Your task to perform on an android device: turn off notifications in google photos Image 0: 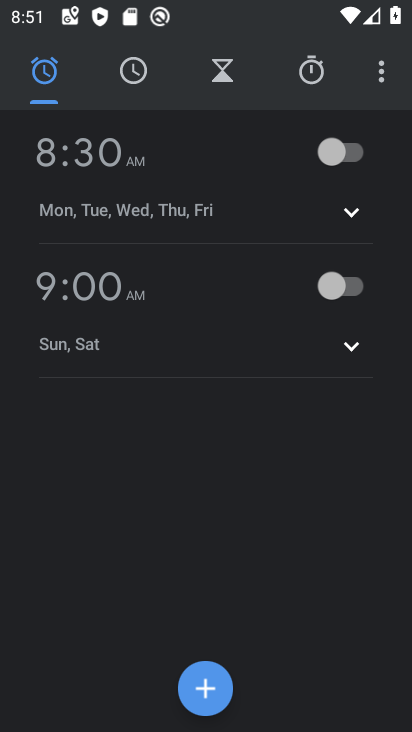
Step 0: press home button
Your task to perform on an android device: turn off notifications in google photos Image 1: 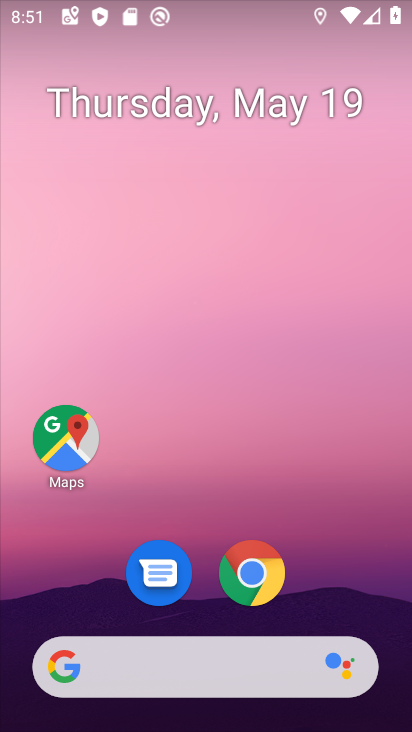
Step 1: drag from (325, 612) to (342, 12)
Your task to perform on an android device: turn off notifications in google photos Image 2: 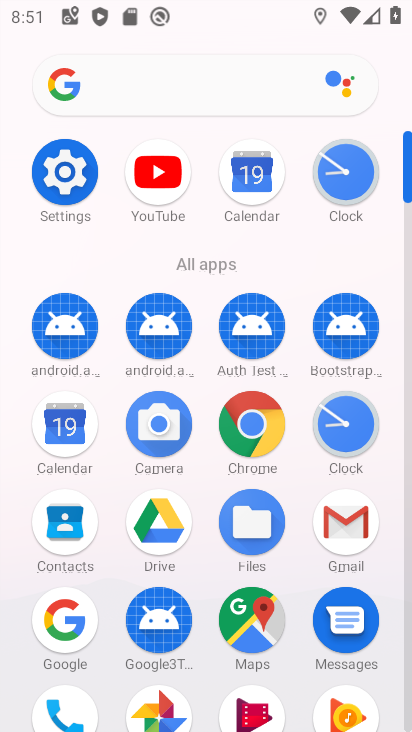
Step 2: click (156, 699)
Your task to perform on an android device: turn off notifications in google photos Image 3: 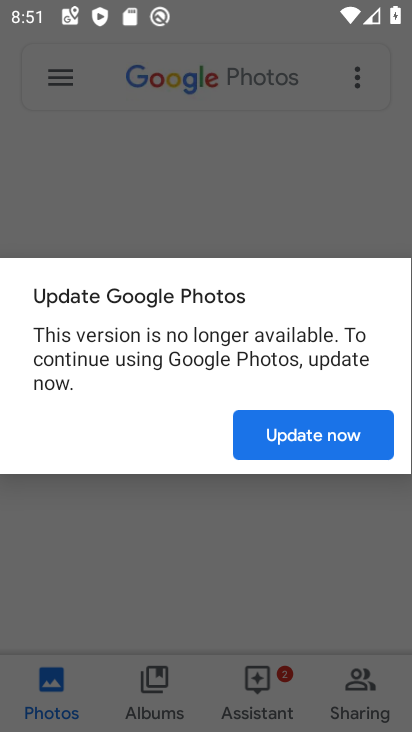
Step 3: click (288, 435)
Your task to perform on an android device: turn off notifications in google photos Image 4: 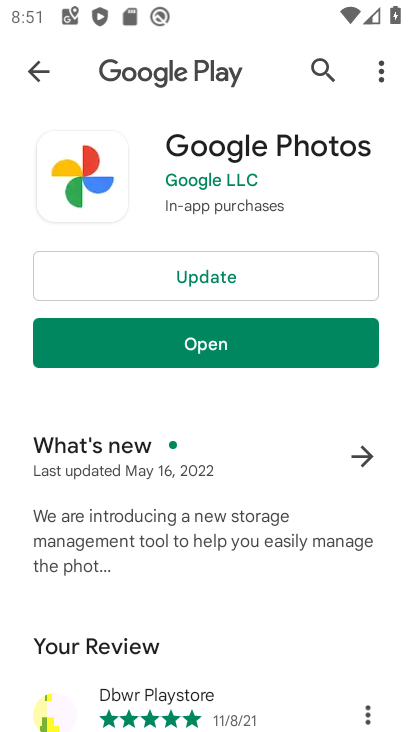
Step 4: click (210, 338)
Your task to perform on an android device: turn off notifications in google photos Image 5: 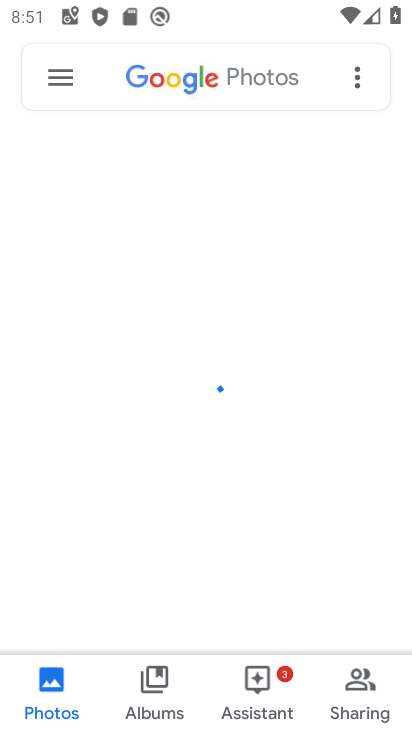
Step 5: click (63, 76)
Your task to perform on an android device: turn off notifications in google photos Image 6: 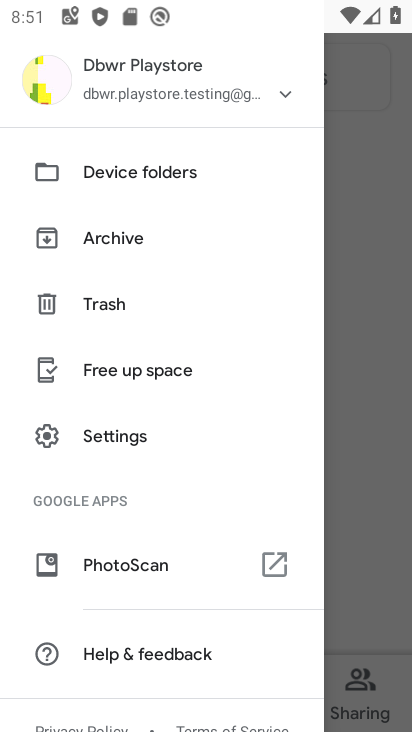
Step 6: click (107, 438)
Your task to perform on an android device: turn off notifications in google photos Image 7: 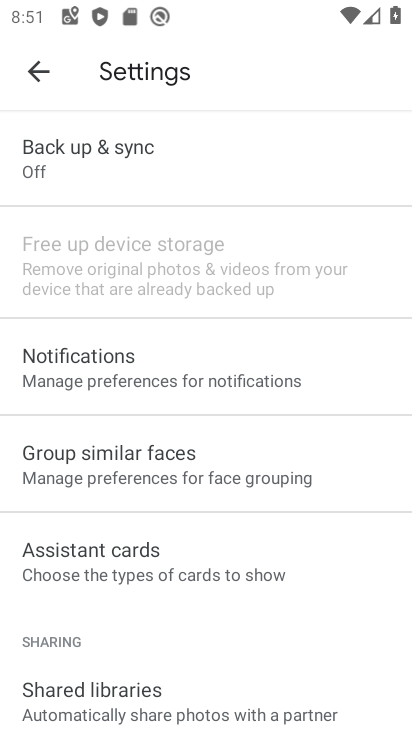
Step 7: click (99, 365)
Your task to perform on an android device: turn off notifications in google photos Image 8: 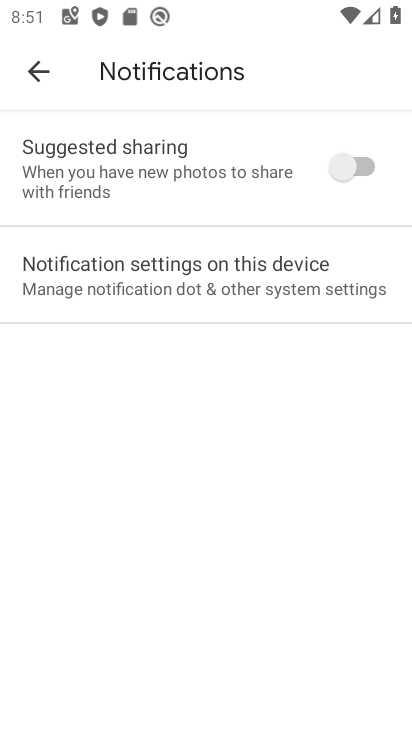
Step 8: click (135, 270)
Your task to perform on an android device: turn off notifications in google photos Image 9: 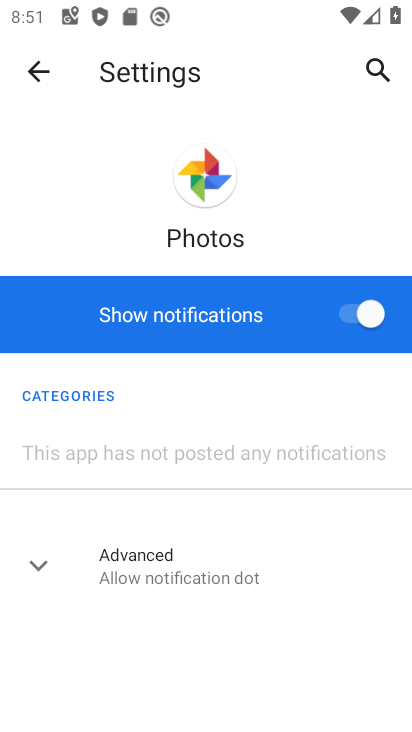
Step 9: click (379, 311)
Your task to perform on an android device: turn off notifications in google photos Image 10: 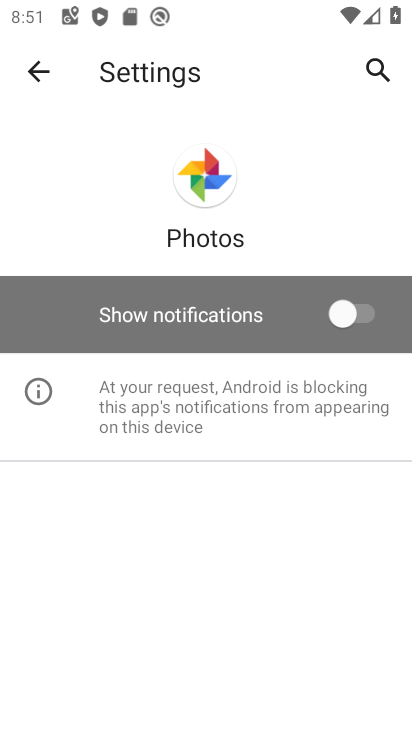
Step 10: task complete